Your task to perform on an android device: show emergency info Image 0: 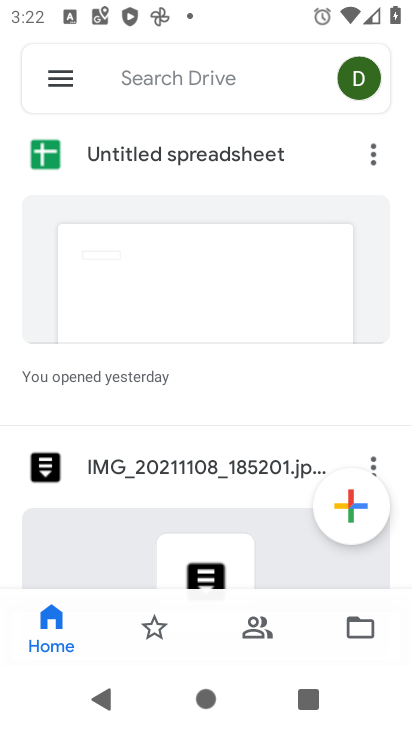
Step 0: press home button
Your task to perform on an android device: show emergency info Image 1: 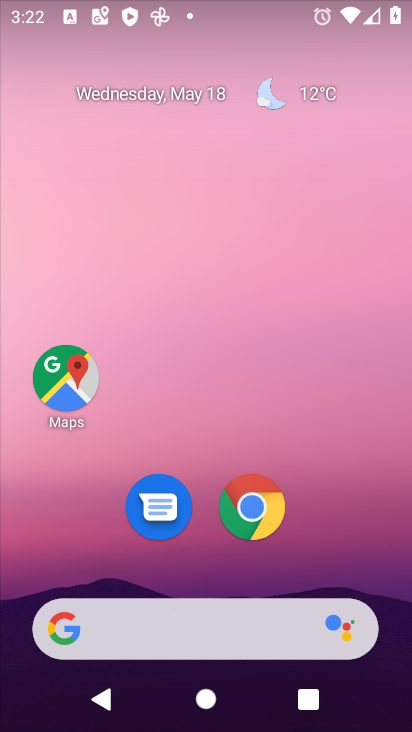
Step 1: drag from (392, 623) to (326, 43)
Your task to perform on an android device: show emergency info Image 2: 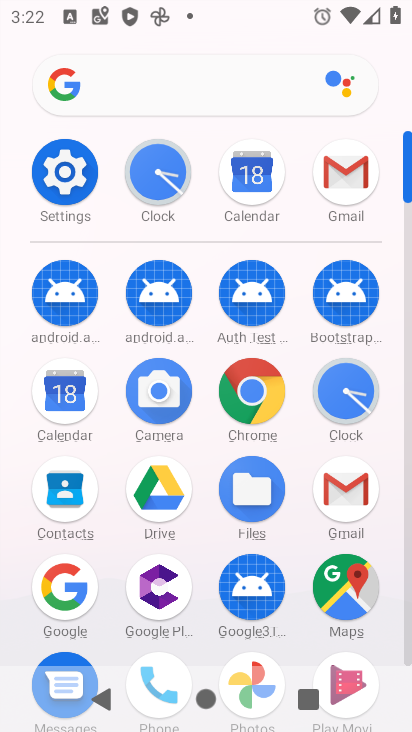
Step 2: click (403, 638)
Your task to perform on an android device: show emergency info Image 3: 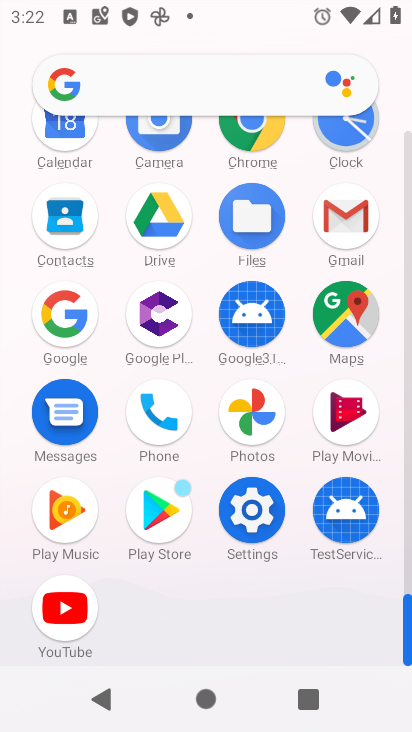
Step 3: click (251, 511)
Your task to perform on an android device: show emergency info Image 4: 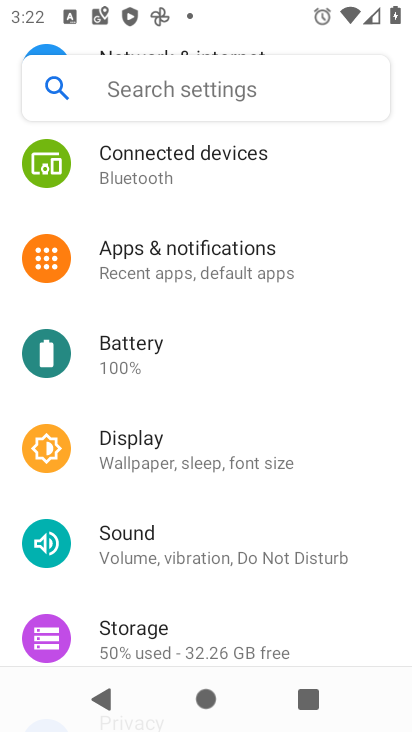
Step 4: drag from (346, 626) to (358, 184)
Your task to perform on an android device: show emergency info Image 5: 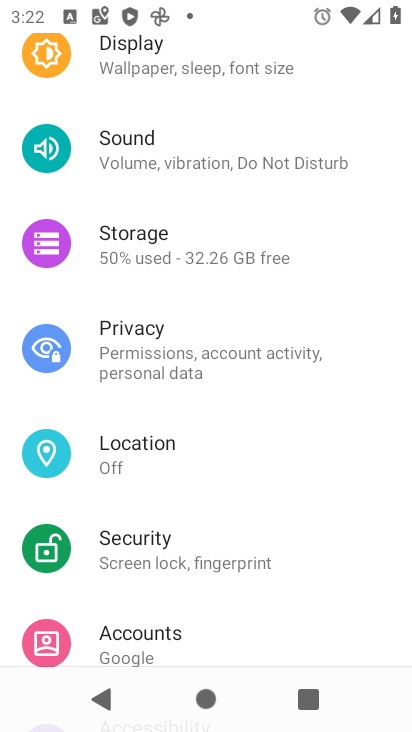
Step 5: drag from (311, 604) to (358, 127)
Your task to perform on an android device: show emergency info Image 6: 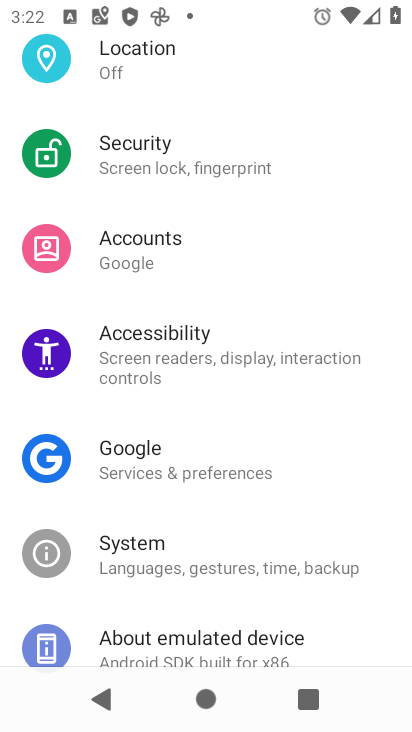
Step 6: drag from (368, 608) to (356, 242)
Your task to perform on an android device: show emergency info Image 7: 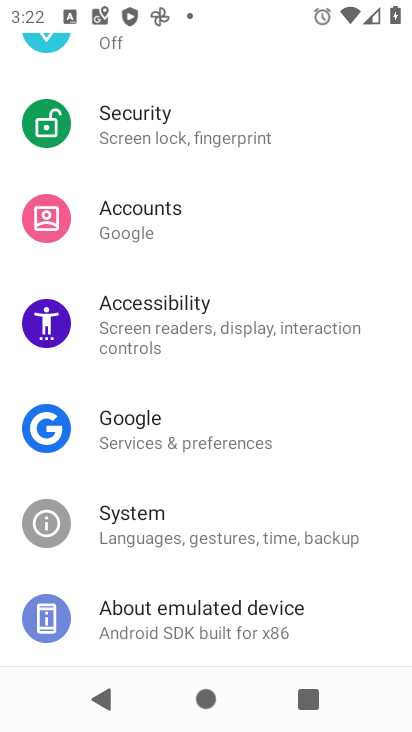
Step 7: click (161, 623)
Your task to perform on an android device: show emergency info Image 8: 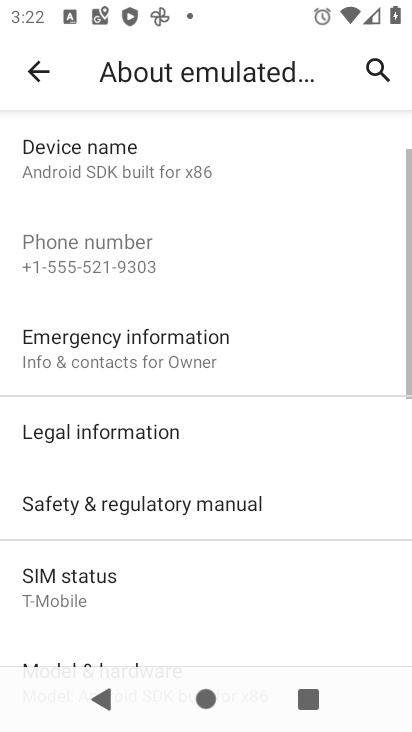
Step 8: click (106, 345)
Your task to perform on an android device: show emergency info Image 9: 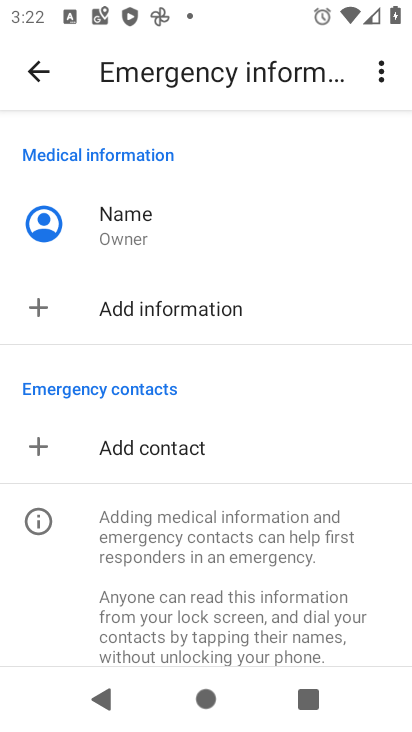
Step 9: task complete